Your task to perform on an android device: change your default location settings in chrome Image 0: 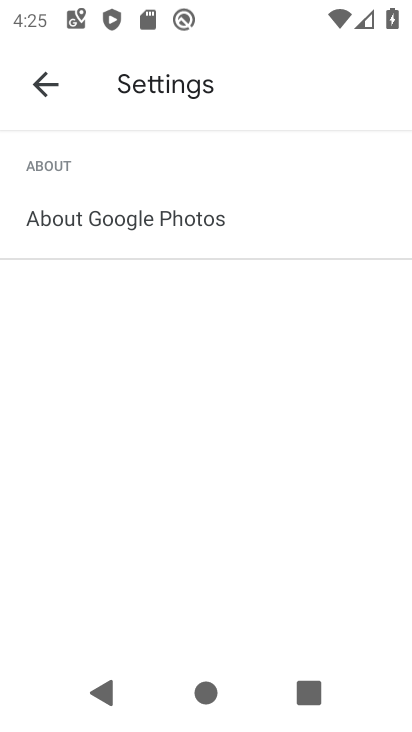
Step 0: press home button
Your task to perform on an android device: change your default location settings in chrome Image 1: 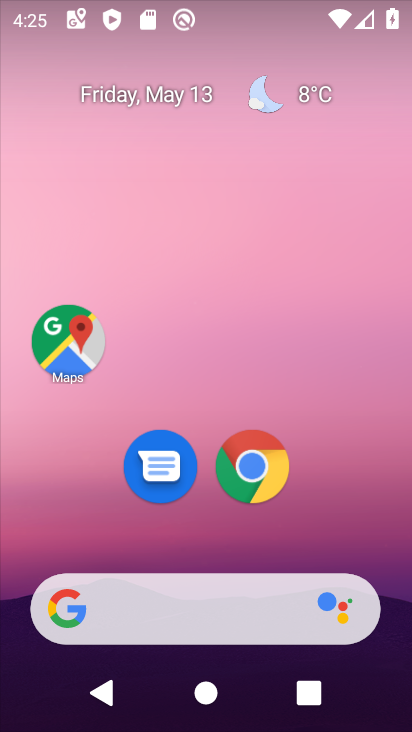
Step 1: click (246, 465)
Your task to perform on an android device: change your default location settings in chrome Image 2: 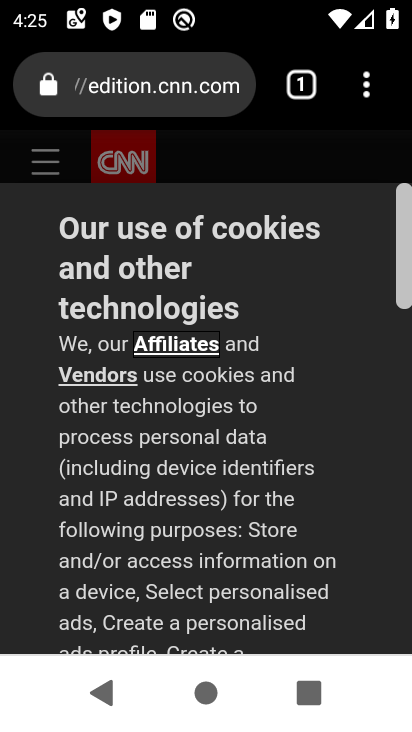
Step 2: click (367, 94)
Your task to perform on an android device: change your default location settings in chrome Image 3: 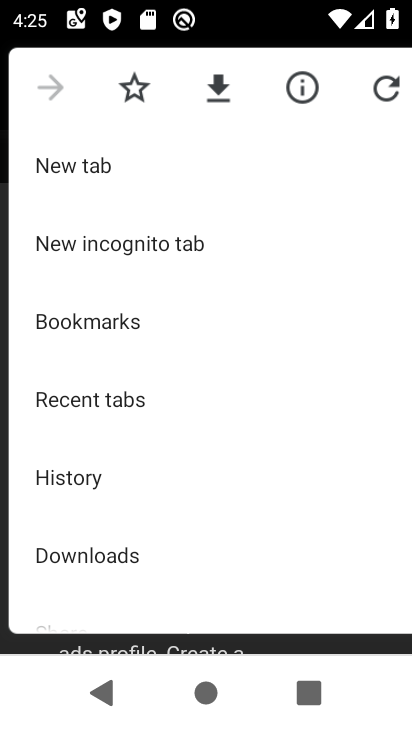
Step 3: drag from (180, 567) to (186, 217)
Your task to perform on an android device: change your default location settings in chrome Image 4: 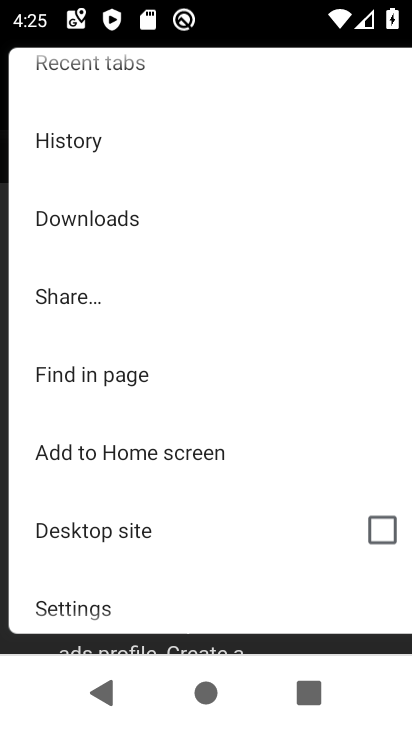
Step 4: click (85, 603)
Your task to perform on an android device: change your default location settings in chrome Image 5: 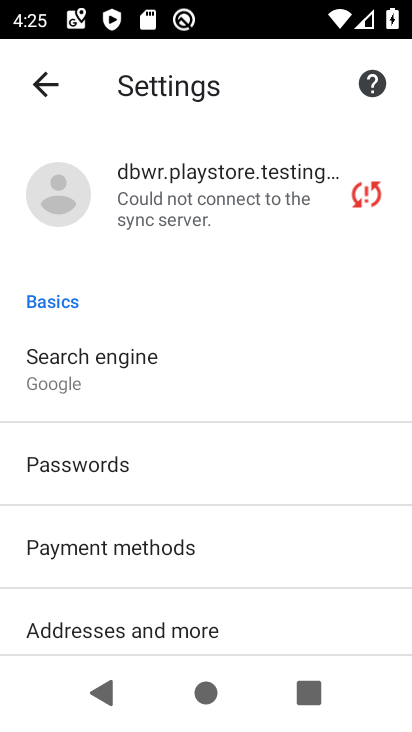
Step 5: drag from (272, 592) to (222, 123)
Your task to perform on an android device: change your default location settings in chrome Image 6: 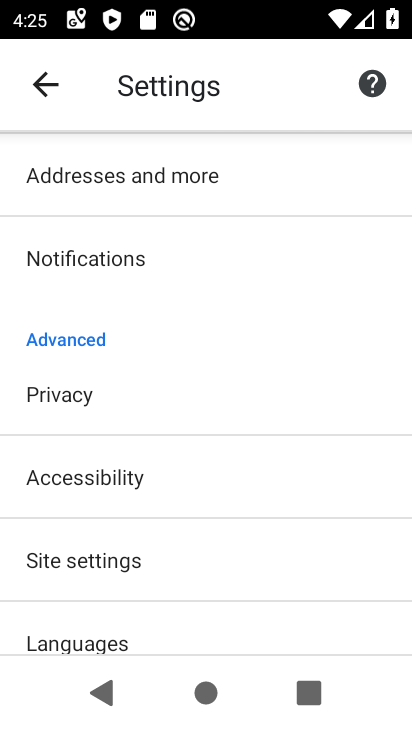
Step 6: click (104, 564)
Your task to perform on an android device: change your default location settings in chrome Image 7: 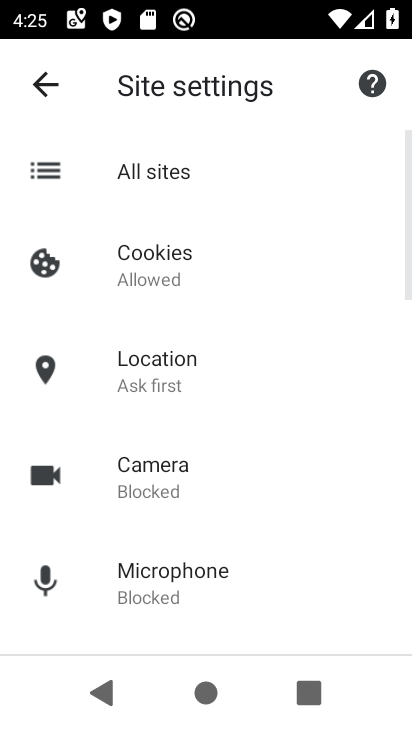
Step 7: click (183, 373)
Your task to perform on an android device: change your default location settings in chrome Image 8: 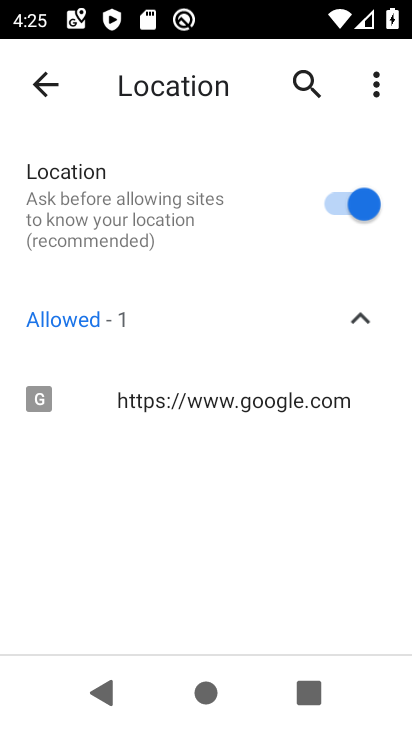
Step 8: click (334, 197)
Your task to perform on an android device: change your default location settings in chrome Image 9: 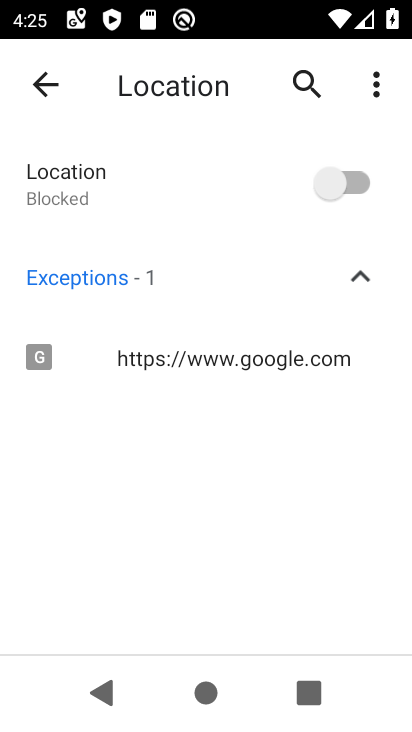
Step 9: task complete